Your task to perform on an android device: Open calendar and show me the fourth week of next month Image 0: 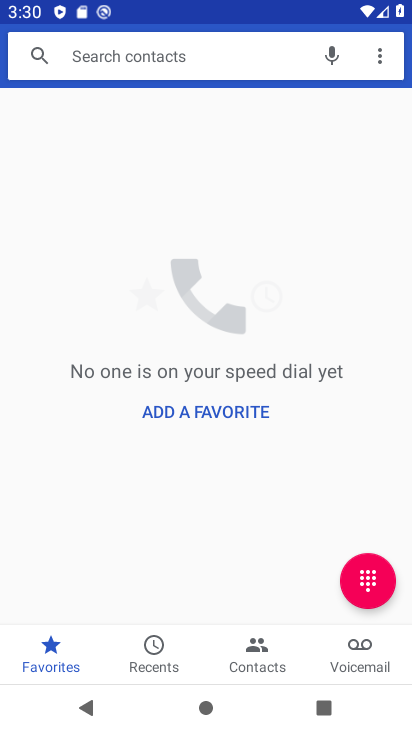
Step 0: press home button
Your task to perform on an android device: Open calendar and show me the fourth week of next month Image 1: 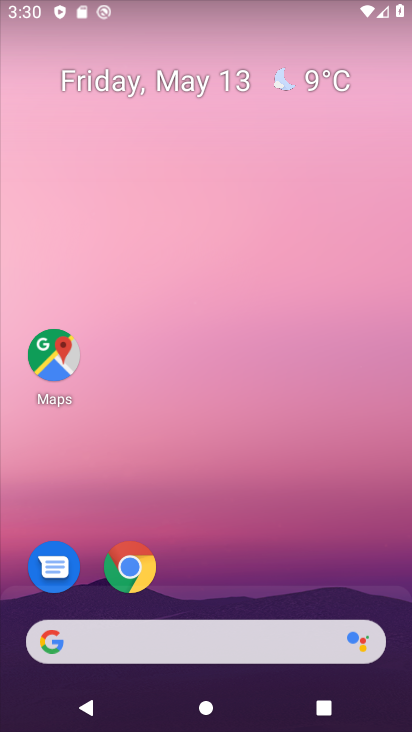
Step 1: drag from (244, 586) to (279, 26)
Your task to perform on an android device: Open calendar and show me the fourth week of next month Image 2: 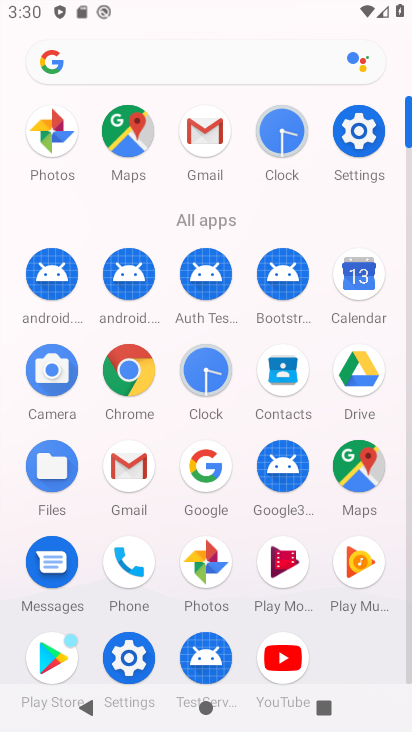
Step 2: drag from (177, 503) to (167, 309)
Your task to perform on an android device: Open calendar and show me the fourth week of next month Image 3: 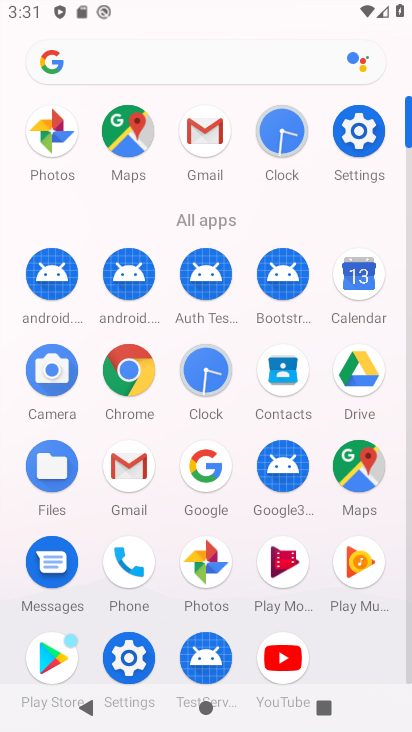
Step 3: click (361, 274)
Your task to perform on an android device: Open calendar and show me the fourth week of next month Image 4: 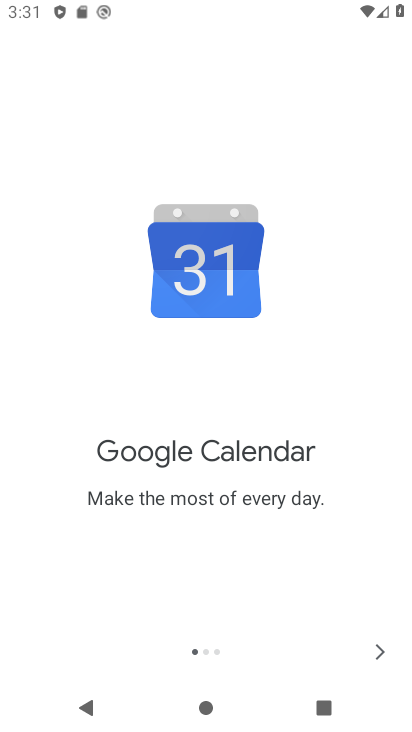
Step 4: click (376, 651)
Your task to perform on an android device: Open calendar and show me the fourth week of next month Image 5: 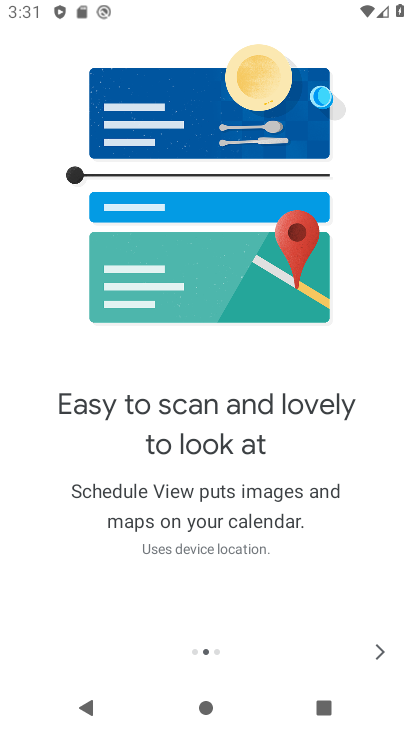
Step 5: click (376, 651)
Your task to perform on an android device: Open calendar and show me the fourth week of next month Image 6: 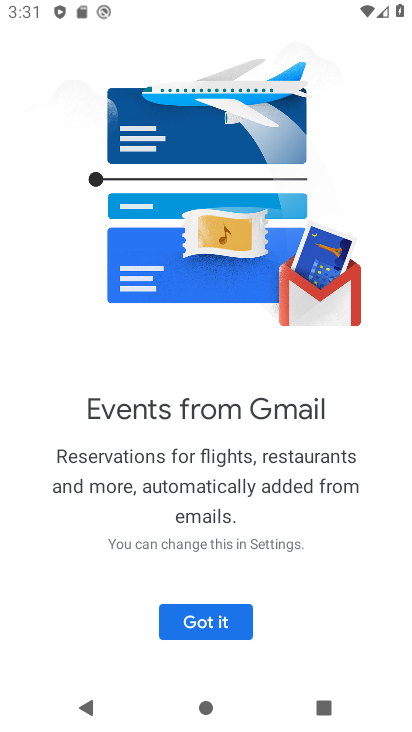
Step 6: click (223, 623)
Your task to perform on an android device: Open calendar and show me the fourth week of next month Image 7: 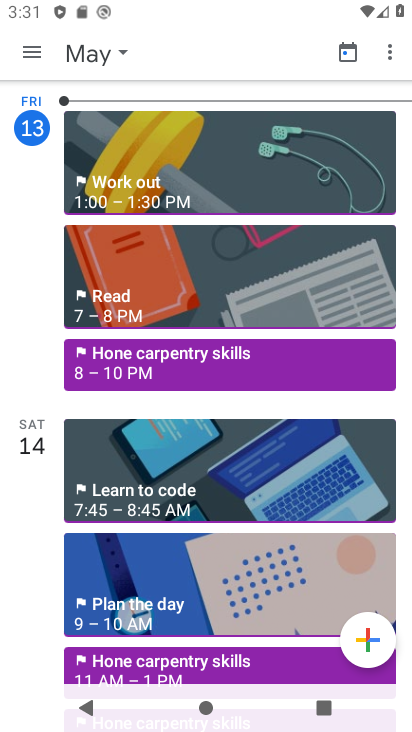
Step 7: click (110, 47)
Your task to perform on an android device: Open calendar and show me the fourth week of next month Image 8: 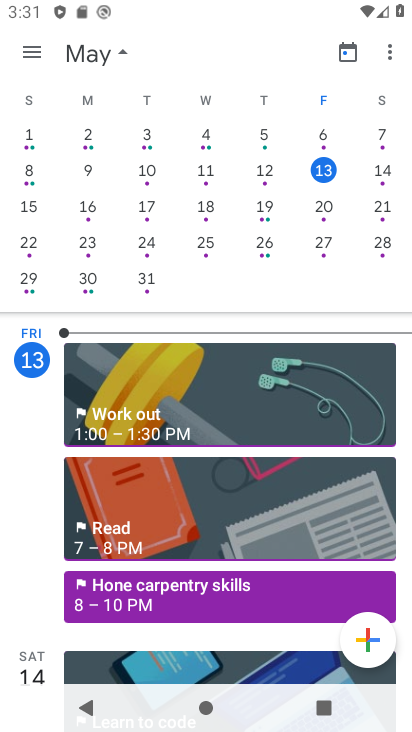
Step 8: drag from (353, 274) to (6, 263)
Your task to perform on an android device: Open calendar and show me the fourth week of next month Image 9: 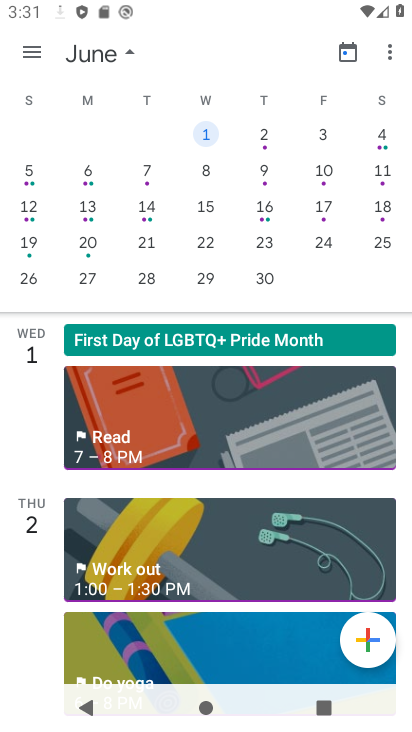
Step 9: click (204, 239)
Your task to perform on an android device: Open calendar and show me the fourth week of next month Image 10: 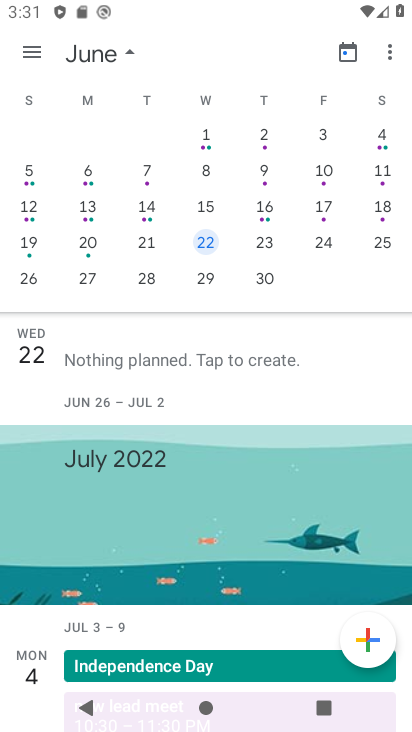
Step 10: task complete